Your task to perform on an android device: toggle javascript in the chrome app Image 0: 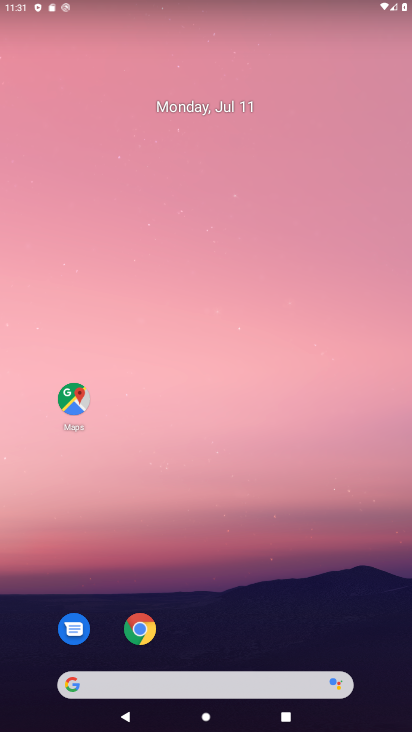
Step 0: drag from (327, 608) to (342, 145)
Your task to perform on an android device: toggle javascript in the chrome app Image 1: 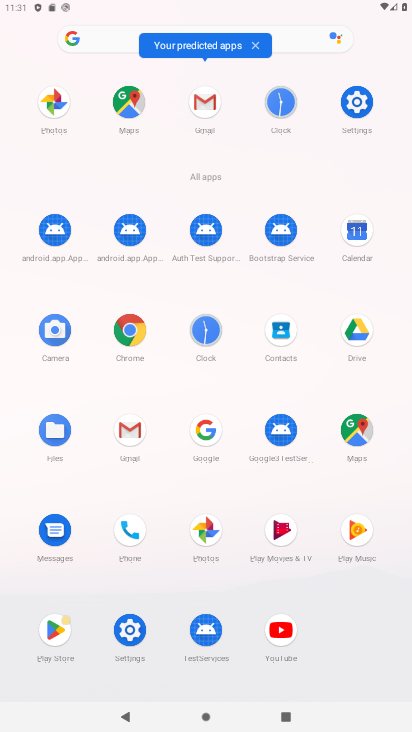
Step 1: click (131, 335)
Your task to perform on an android device: toggle javascript in the chrome app Image 2: 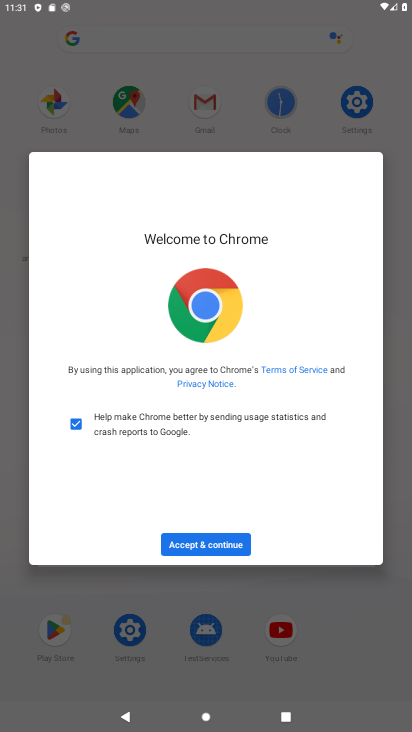
Step 2: click (221, 548)
Your task to perform on an android device: toggle javascript in the chrome app Image 3: 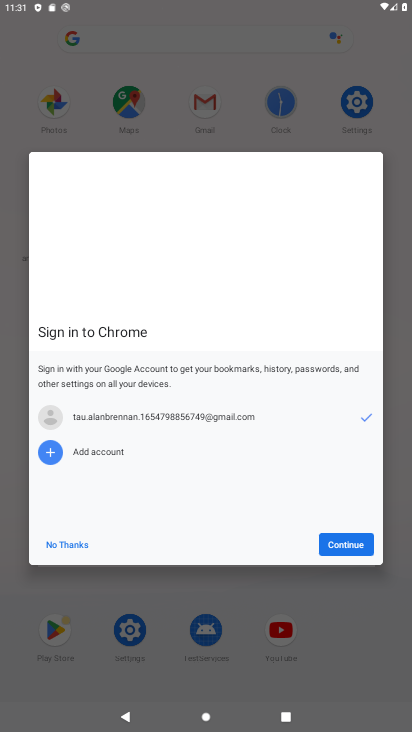
Step 3: click (344, 538)
Your task to perform on an android device: toggle javascript in the chrome app Image 4: 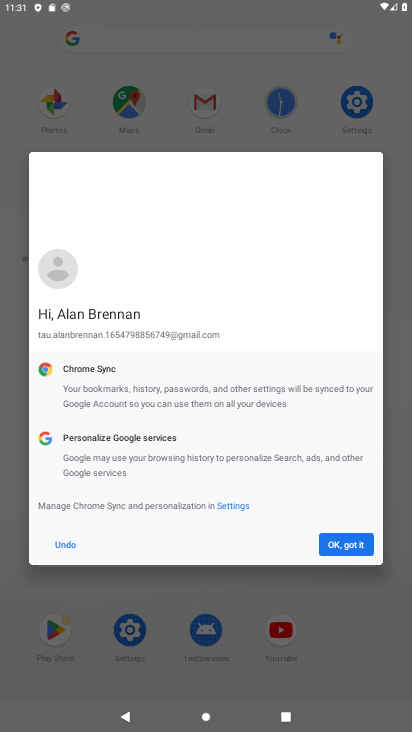
Step 4: click (357, 546)
Your task to perform on an android device: toggle javascript in the chrome app Image 5: 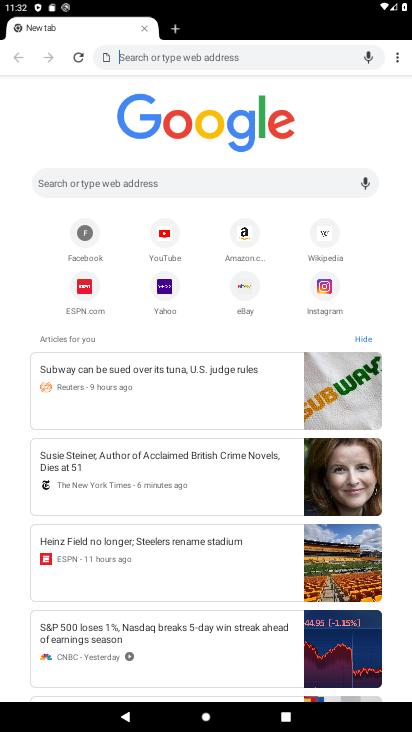
Step 5: click (392, 60)
Your task to perform on an android device: toggle javascript in the chrome app Image 6: 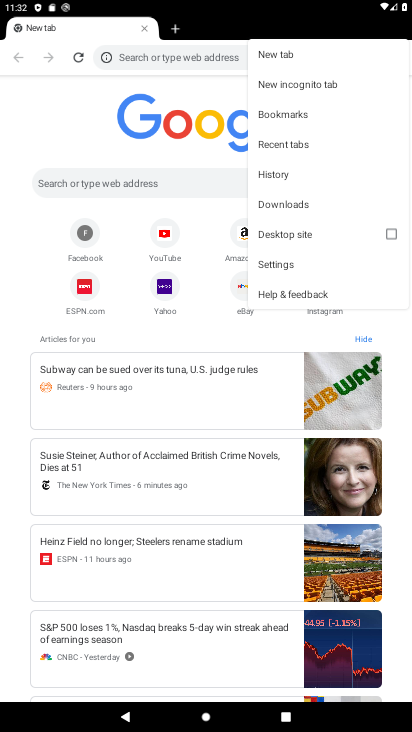
Step 6: click (298, 268)
Your task to perform on an android device: toggle javascript in the chrome app Image 7: 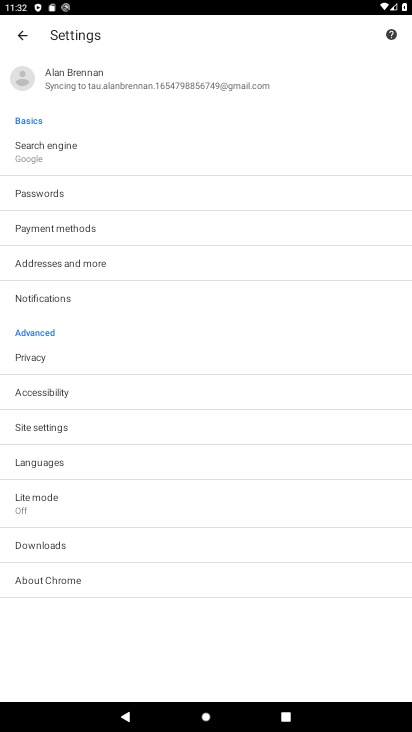
Step 7: click (124, 436)
Your task to perform on an android device: toggle javascript in the chrome app Image 8: 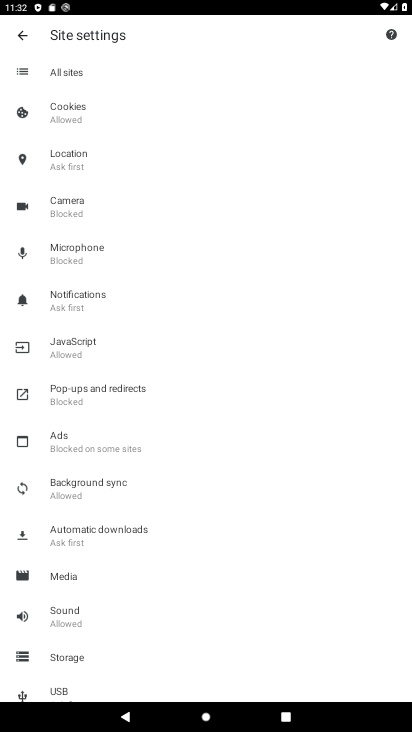
Step 8: click (126, 358)
Your task to perform on an android device: toggle javascript in the chrome app Image 9: 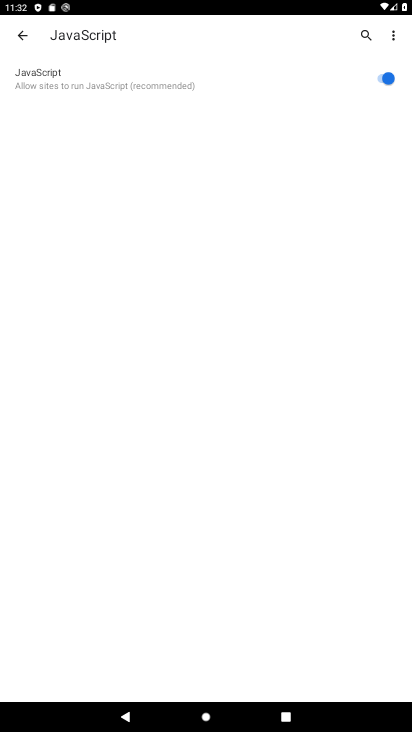
Step 9: click (382, 77)
Your task to perform on an android device: toggle javascript in the chrome app Image 10: 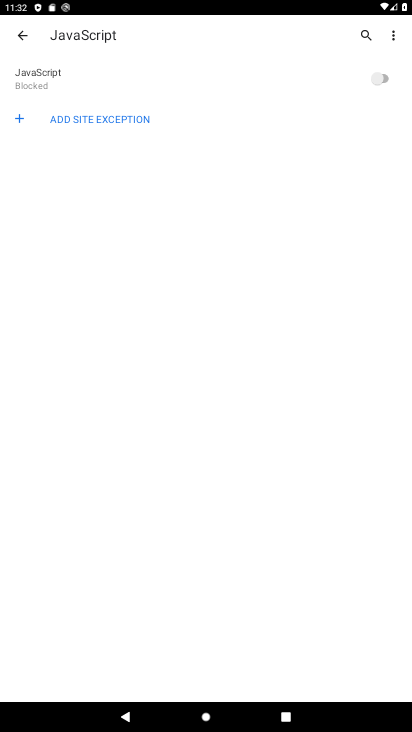
Step 10: task complete